Your task to perform on an android device: show emergency info Image 0: 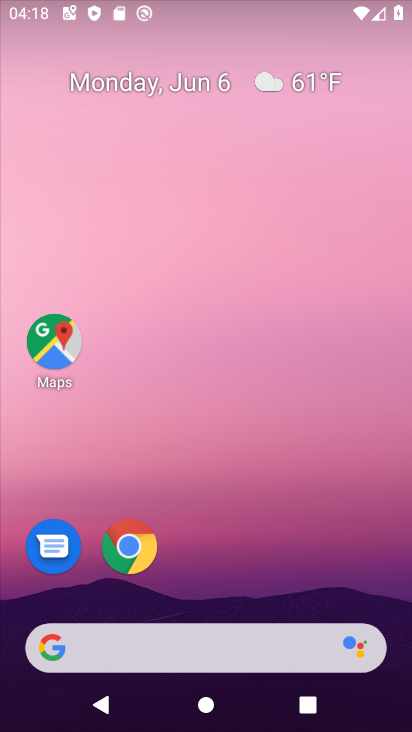
Step 0: press home button
Your task to perform on an android device: show emergency info Image 1: 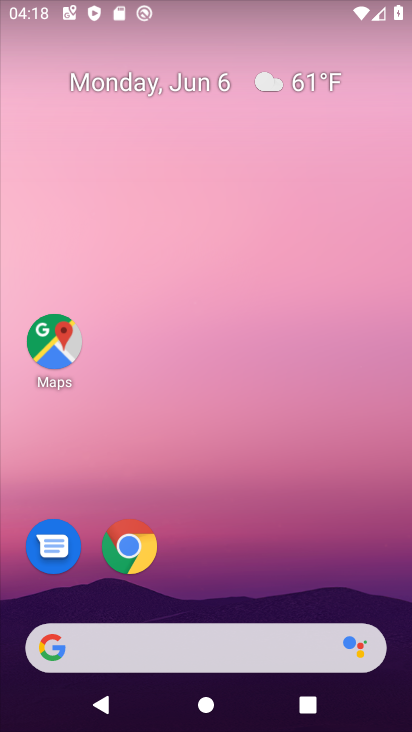
Step 1: drag from (241, 612) to (272, 0)
Your task to perform on an android device: show emergency info Image 2: 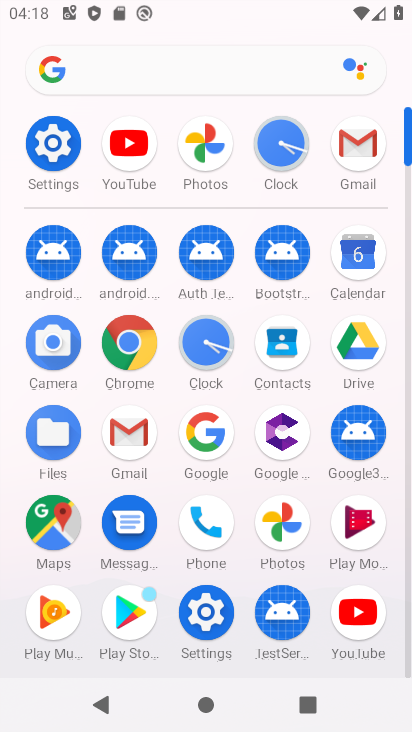
Step 2: click (31, 164)
Your task to perform on an android device: show emergency info Image 3: 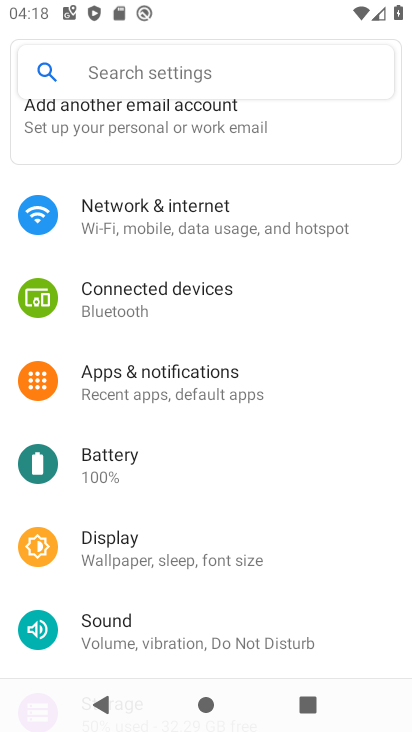
Step 3: drag from (227, 581) to (240, 18)
Your task to perform on an android device: show emergency info Image 4: 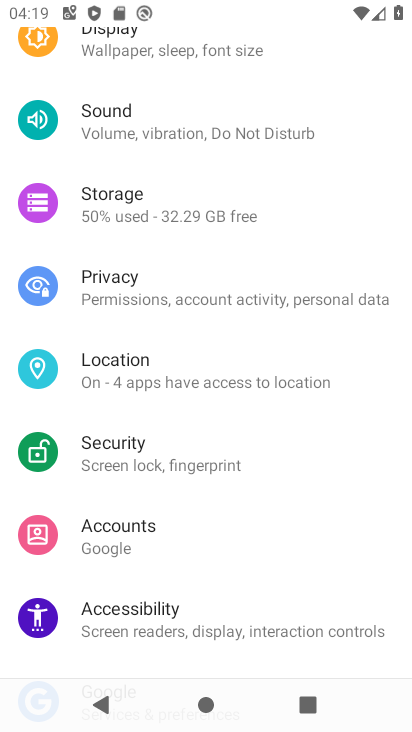
Step 4: drag from (288, 595) to (323, 8)
Your task to perform on an android device: show emergency info Image 5: 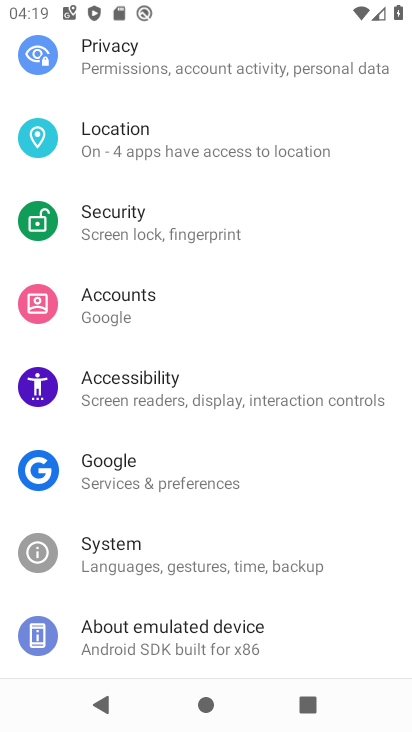
Step 5: click (185, 638)
Your task to perform on an android device: show emergency info Image 6: 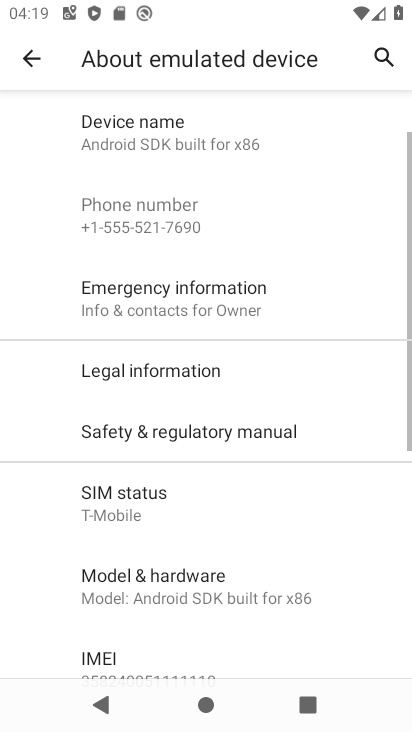
Step 6: click (181, 281)
Your task to perform on an android device: show emergency info Image 7: 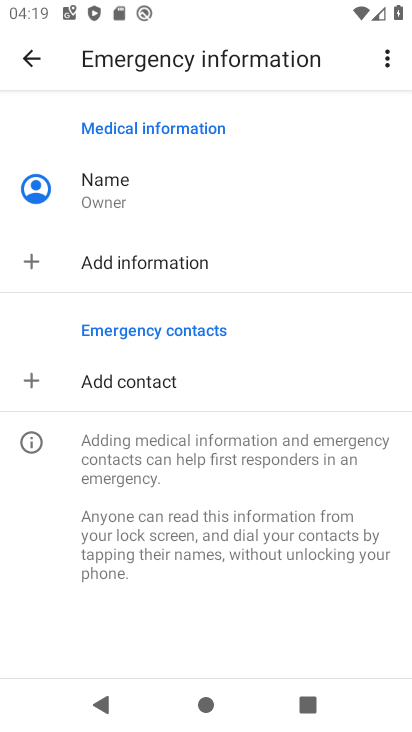
Step 7: task complete